Your task to perform on an android device: Show me the alarms in the clock app Image 0: 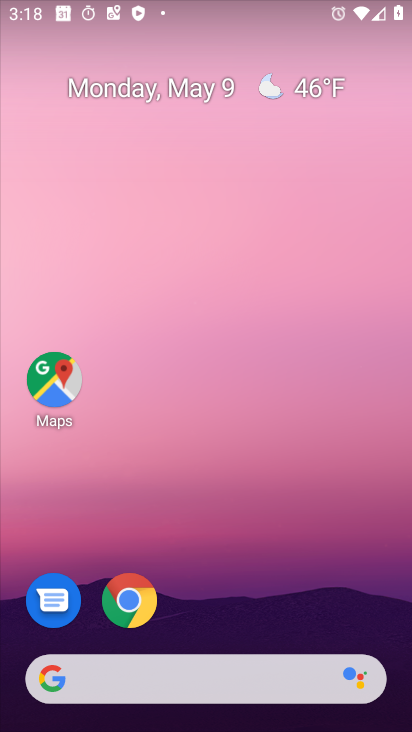
Step 0: drag from (279, 551) to (303, 125)
Your task to perform on an android device: Show me the alarms in the clock app Image 1: 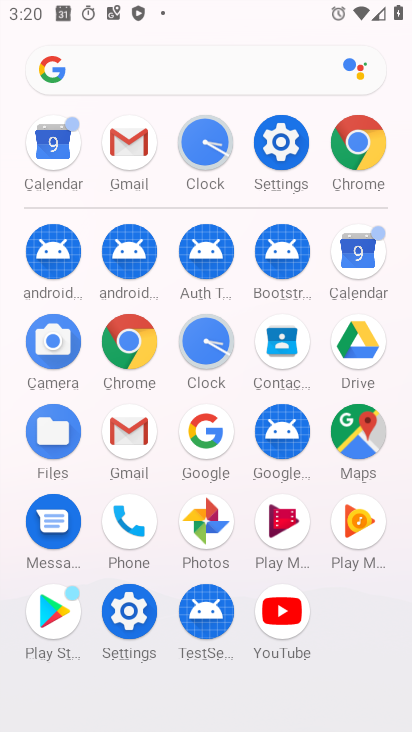
Step 1: click (205, 147)
Your task to perform on an android device: Show me the alarms in the clock app Image 2: 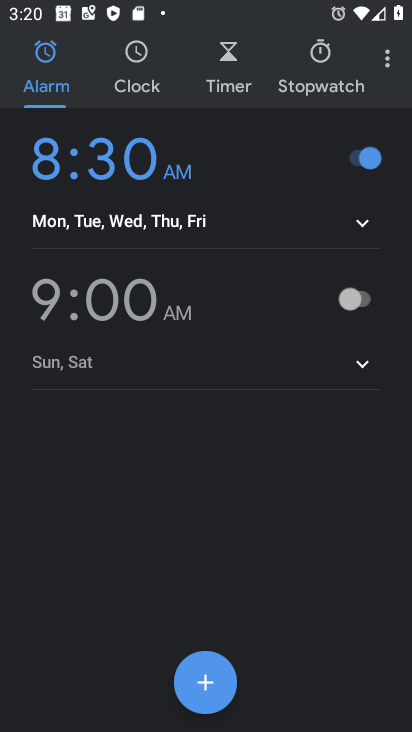
Step 2: task complete